Your task to perform on an android device: open app "AliExpress" Image 0: 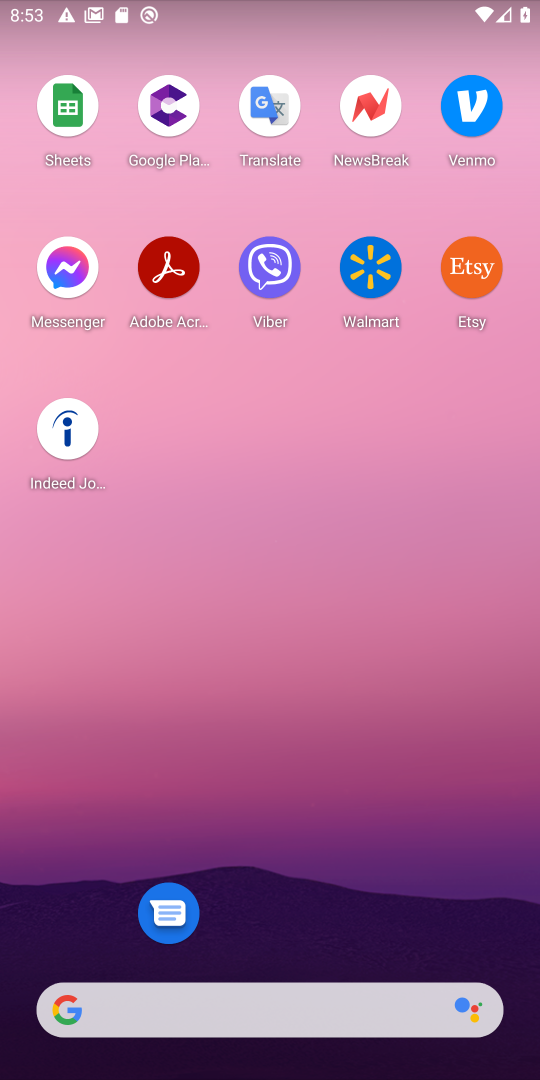
Step 0: drag from (263, 1000) to (291, 194)
Your task to perform on an android device: open app "AliExpress" Image 1: 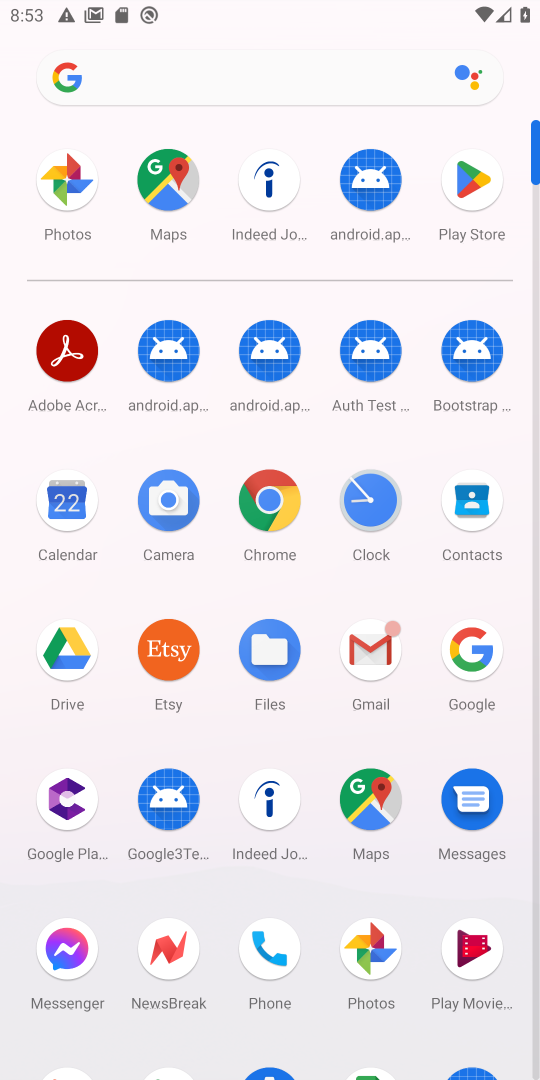
Step 1: click (480, 175)
Your task to perform on an android device: open app "AliExpress" Image 2: 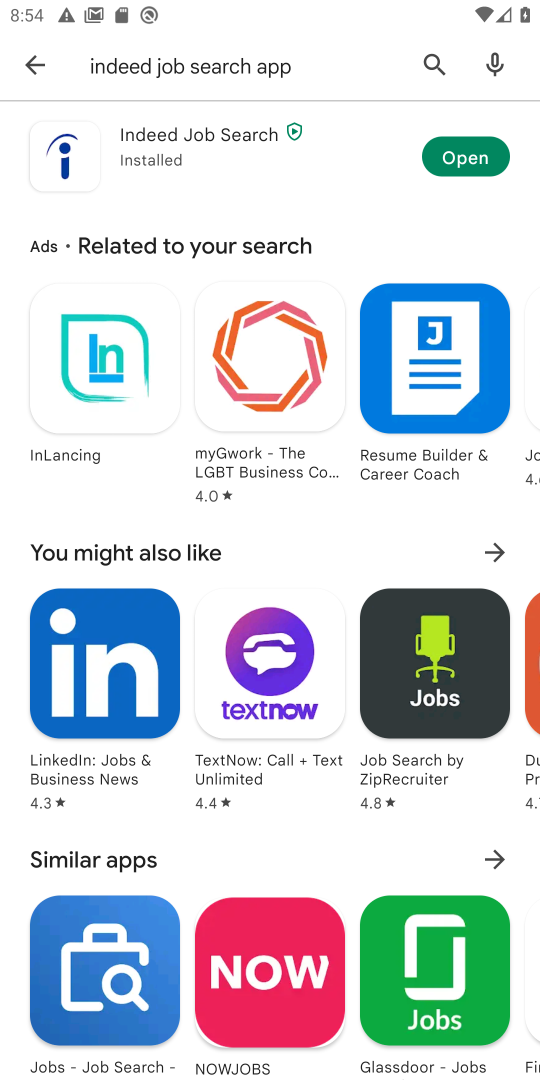
Step 2: click (438, 66)
Your task to perform on an android device: open app "AliExpress" Image 3: 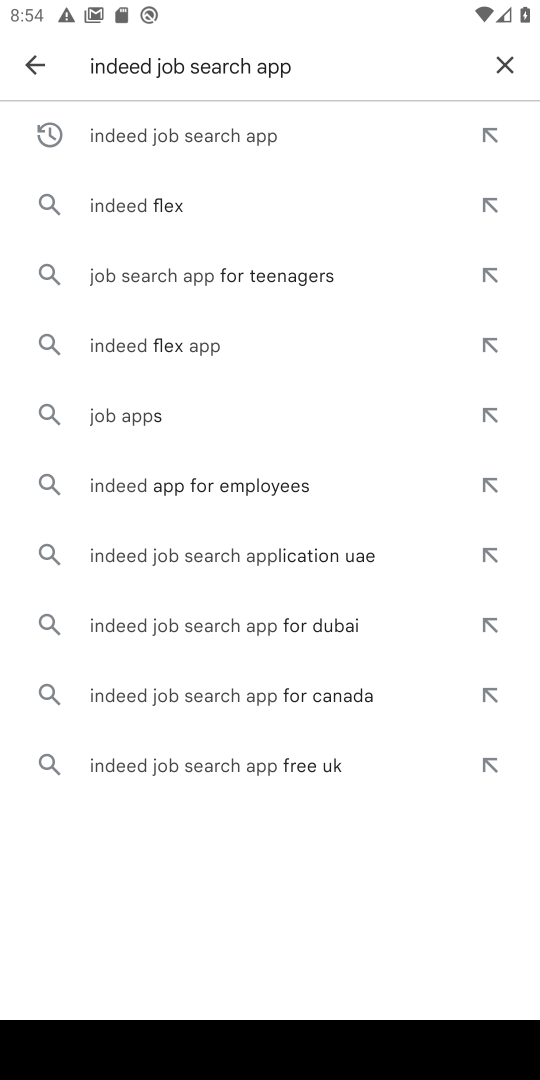
Step 3: click (497, 61)
Your task to perform on an android device: open app "AliExpress" Image 4: 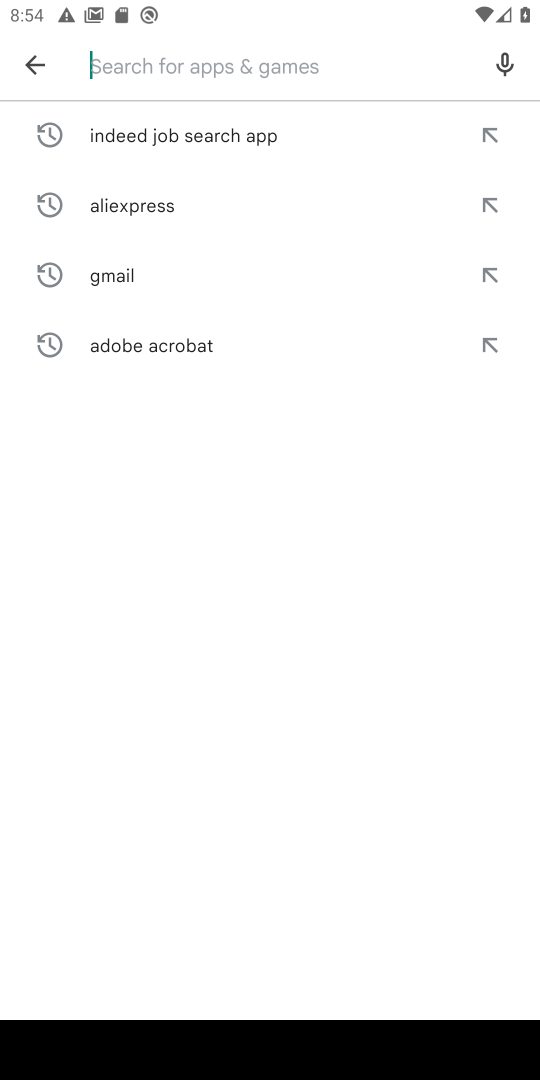
Step 4: type "ali express"
Your task to perform on an android device: open app "AliExpress" Image 5: 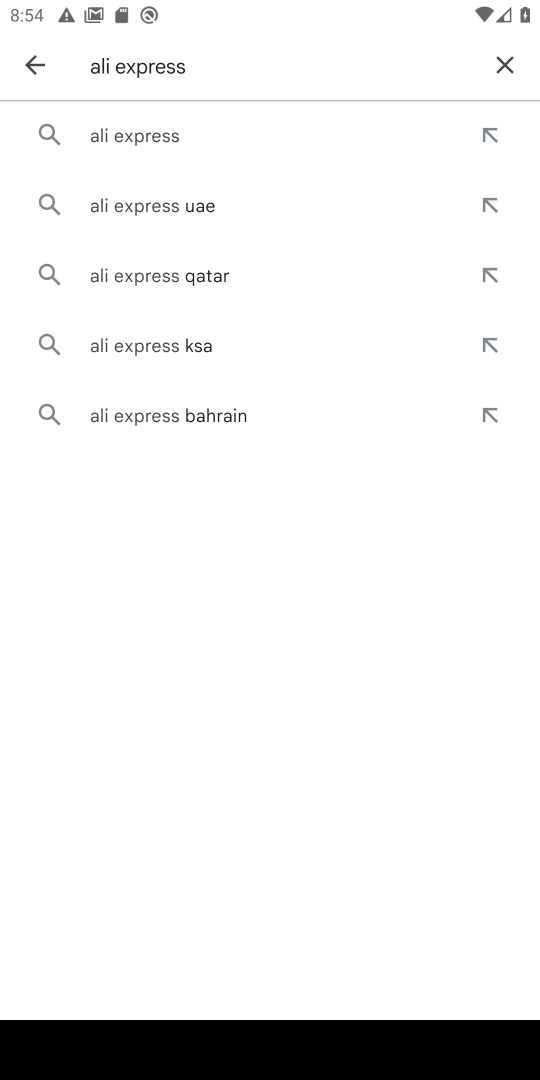
Step 5: click (198, 140)
Your task to perform on an android device: open app "AliExpress" Image 6: 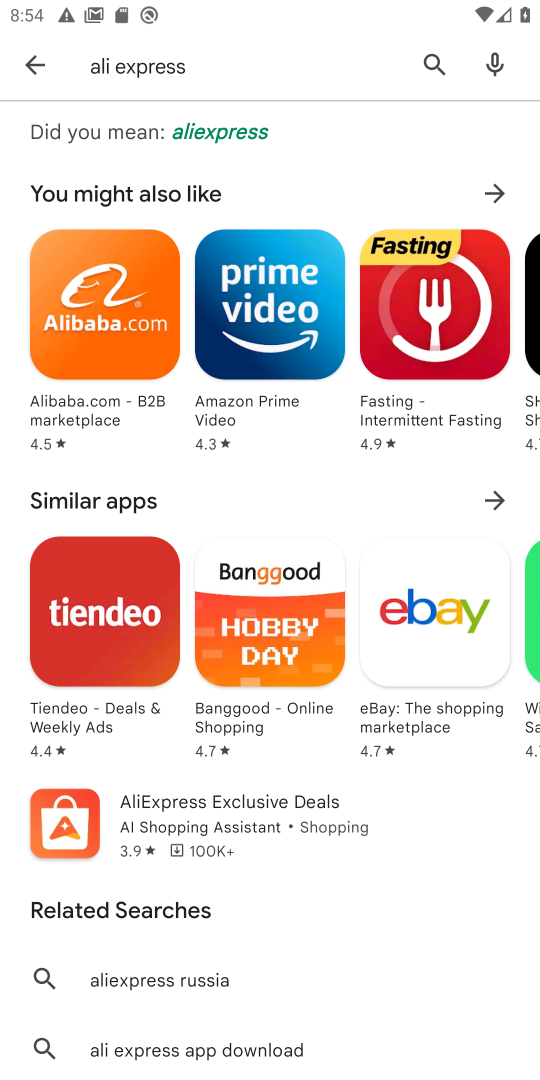
Step 6: click (256, 835)
Your task to perform on an android device: open app "AliExpress" Image 7: 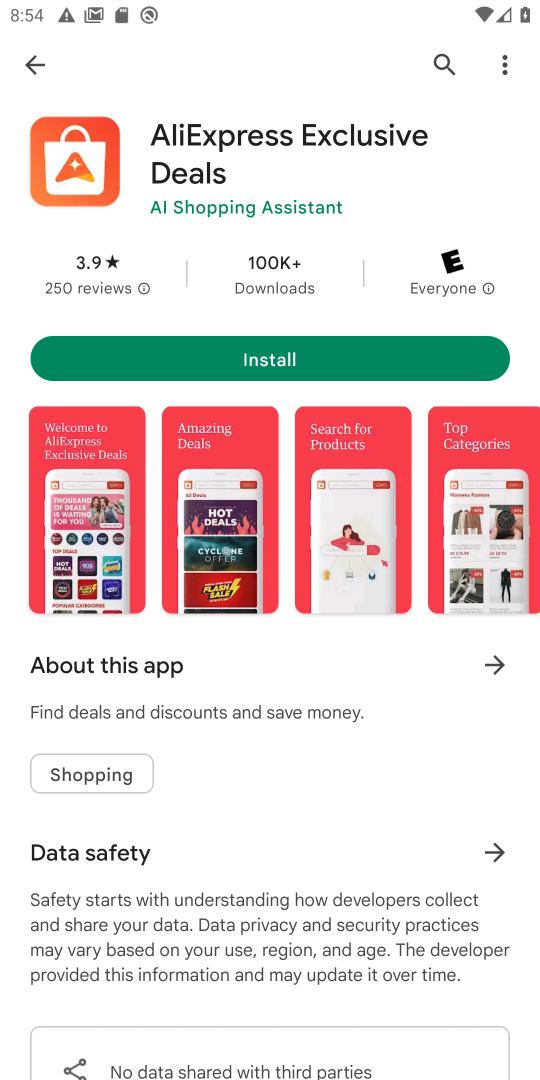
Step 7: task complete